Your task to perform on an android device: turn smart compose on in the gmail app Image 0: 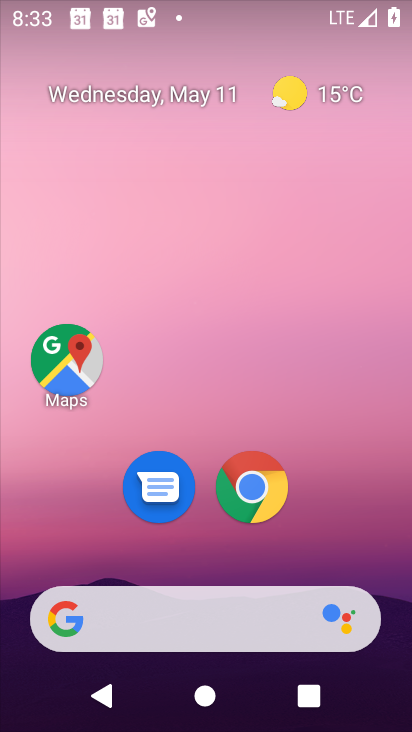
Step 0: drag from (289, 665) to (283, 275)
Your task to perform on an android device: turn smart compose on in the gmail app Image 1: 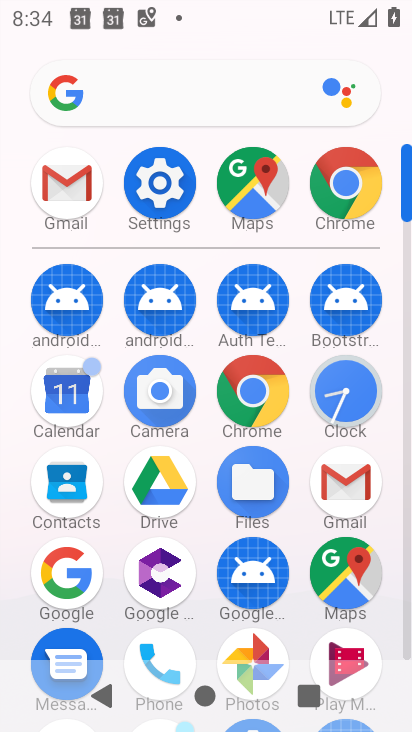
Step 1: click (74, 202)
Your task to perform on an android device: turn smart compose on in the gmail app Image 2: 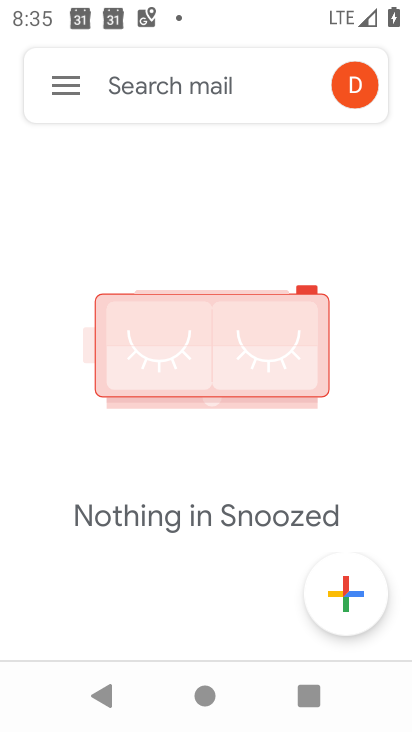
Step 2: click (61, 90)
Your task to perform on an android device: turn smart compose on in the gmail app Image 3: 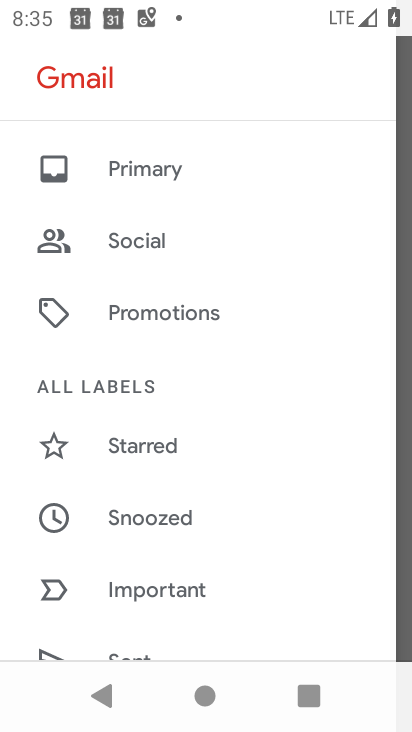
Step 3: drag from (213, 517) to (237, 241)
Your task to perform on an android device: turn smart compose on in the gmail app Image 4: 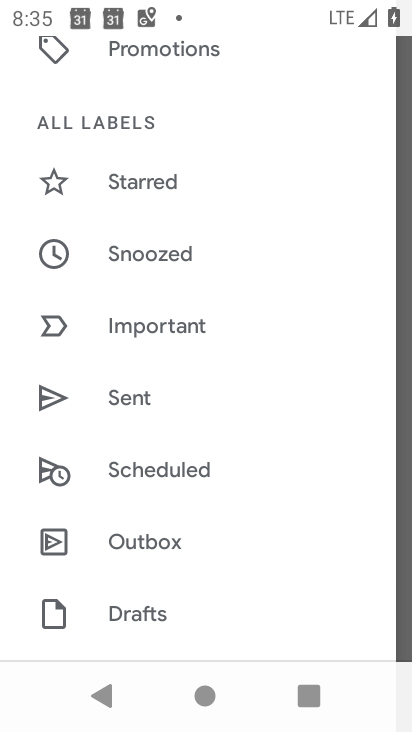
Step 4: drag from (171, 536) to (159, 231)
Your task to perform on an android device: turn smart compose on in the gmail app Image 5: 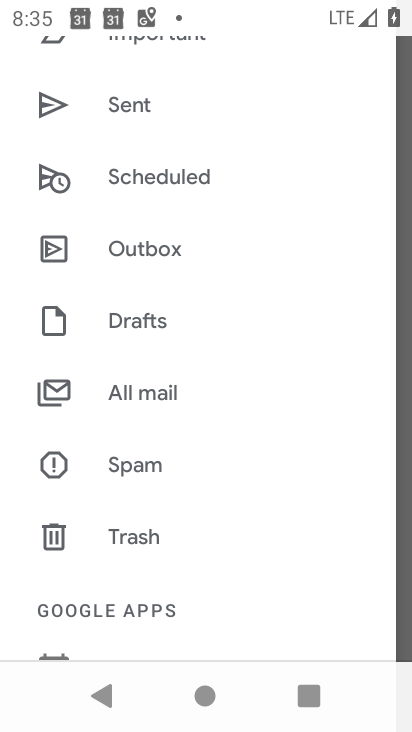
Step 5: drag from (154, 583) to (184, 313)
Your task to perform on an android device: turn smart compose on in the gmail app Image 6: 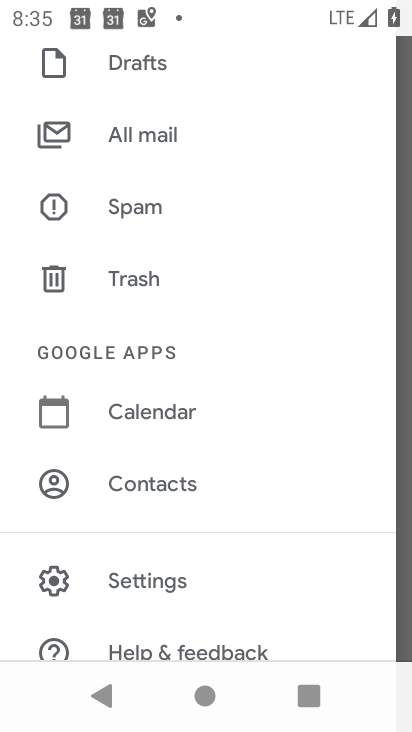
Step 6: click (163, 570)
Your task to perform on an android device: turn smart compose on in the gmail app Image 7: 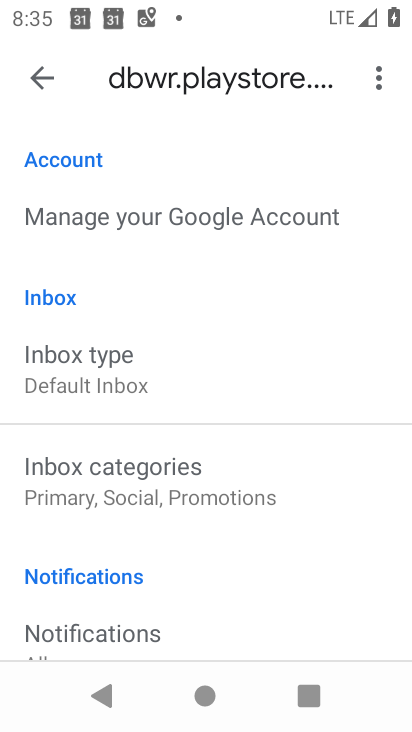
Step 7: drag from (198, 394) to (217, 218)
Your task to perform on an android device: turn smart compose on in the gmail app Image 8: 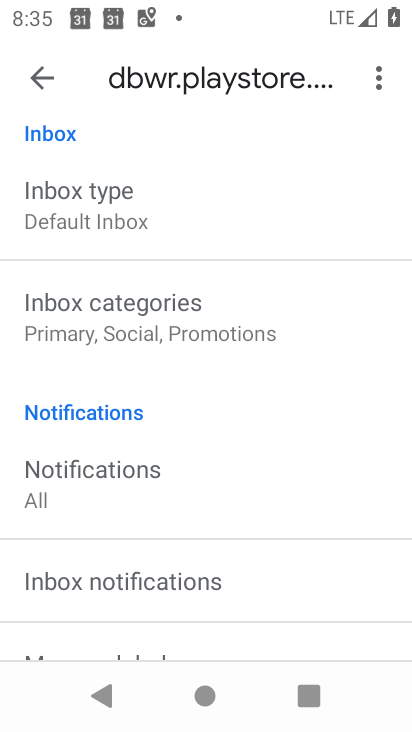
Step 8: drag from (198, 525) to (177, 241)
Your task to perform on an android device: turn smart compose on in the gmail app Image 9: 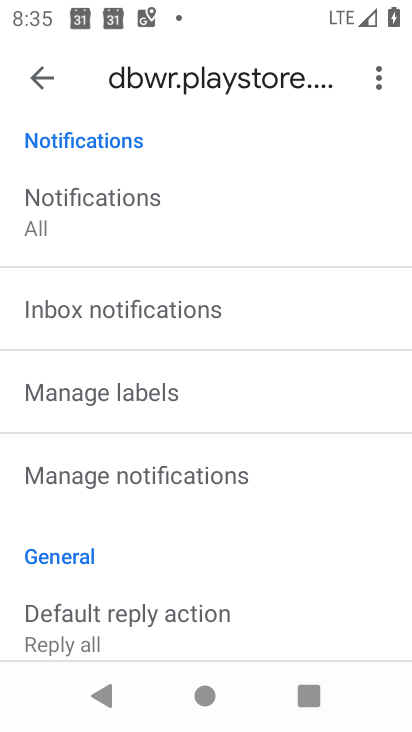
Step 9: drag from (194, 585) to (182, 267)
Your task to perform on an android device: turn smart compose on in the gmail app Image 10: 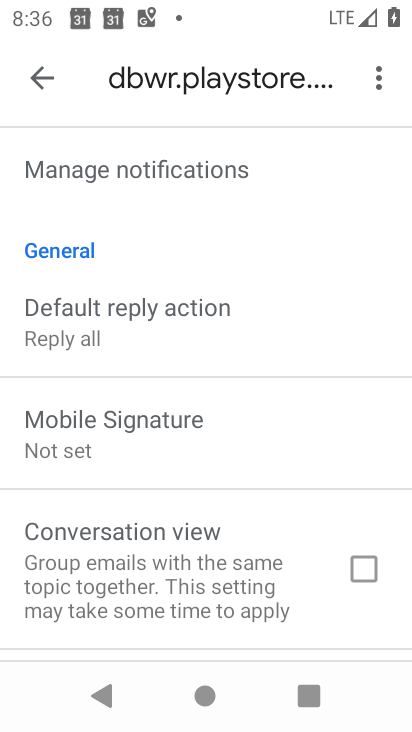
Step 10: drag from (273, 550) to (281, 312)
Your task to perform on an android device: turn smart compose on in the gmail app Image 11: 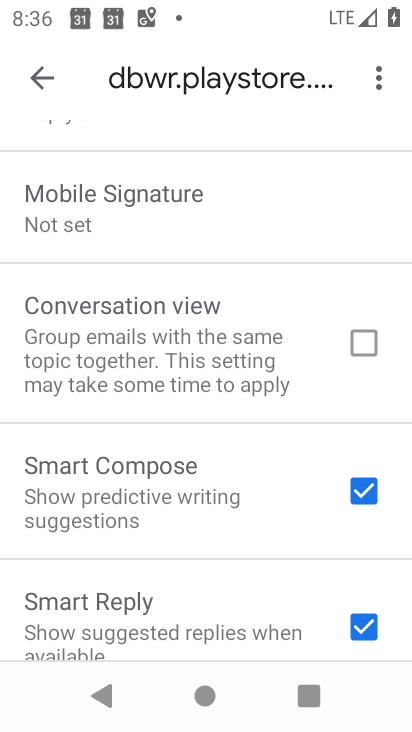
Step 11: click (344, 492)
Your task to perform on an android device: turn smart compose on in the gmail app Image 12: 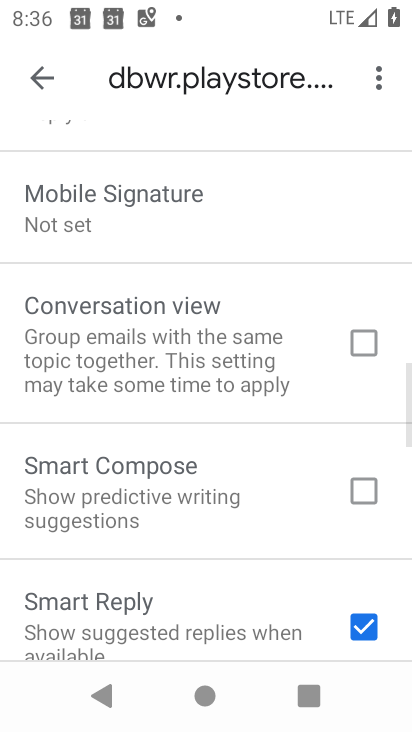
Step 12: click (354, 493)
Your task to perform on an android device: turn smart compose on in the gmail app Image 13: 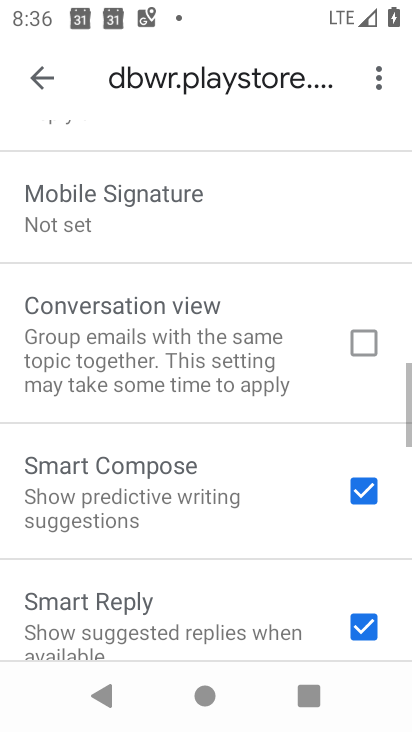
Step 13: task complete